Your task to perform on an android device: open a new tab in the chrome app Image 0: 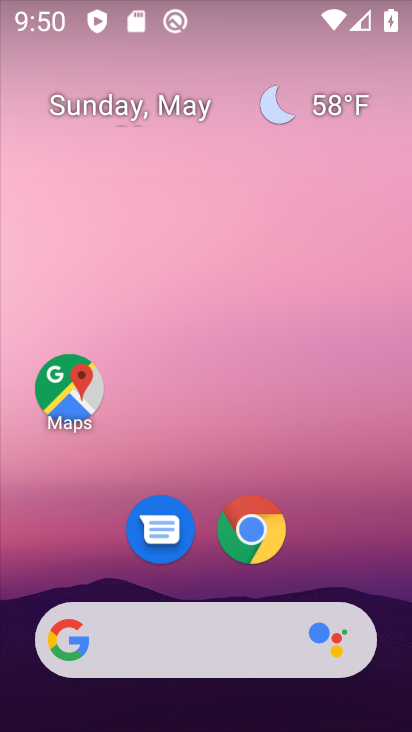
Step 0: drag from (221, 576) to (218, 390)
Your task to perform on an android device: open a new tab in the chrome app Image 1: 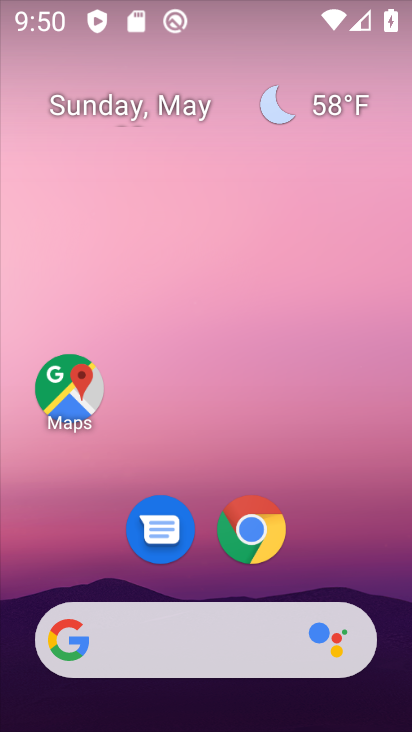
Step 1: click (264, 510)
Your task to perform on an android device: open a new tab in the chrome app Image 2: 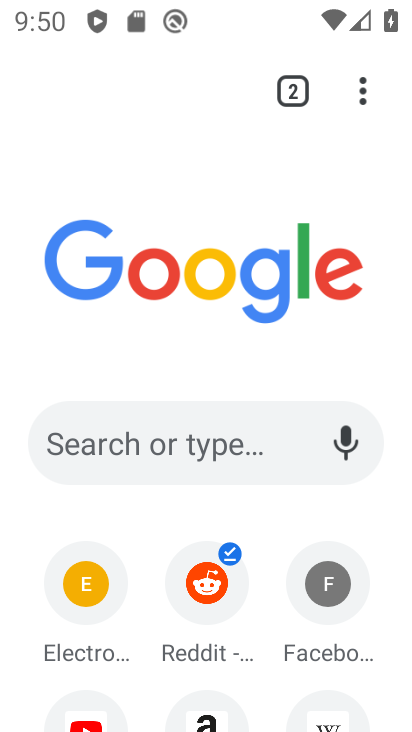
Step 2: click (371, 80)
Your task to perform on an android device: open a new tab in the chrome app Image 3: 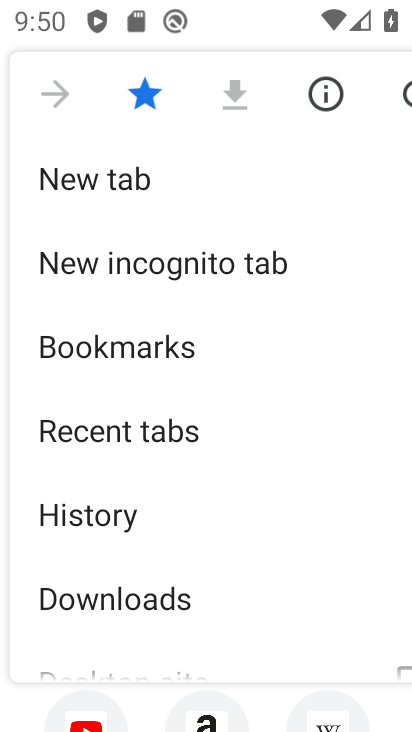
Step 3: click (134, 186)
Your task to perform on an android device: open a new tab in the chrome app Image 4: 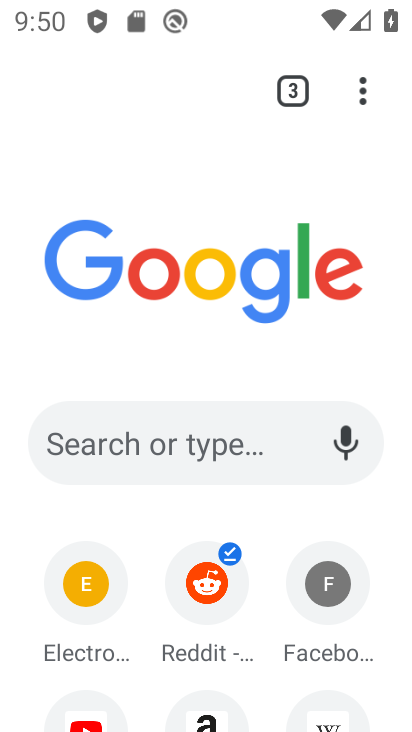
Step 4: task complete